Your task to perform on an android device: Show me productivity apps on the Play Store Image 0: 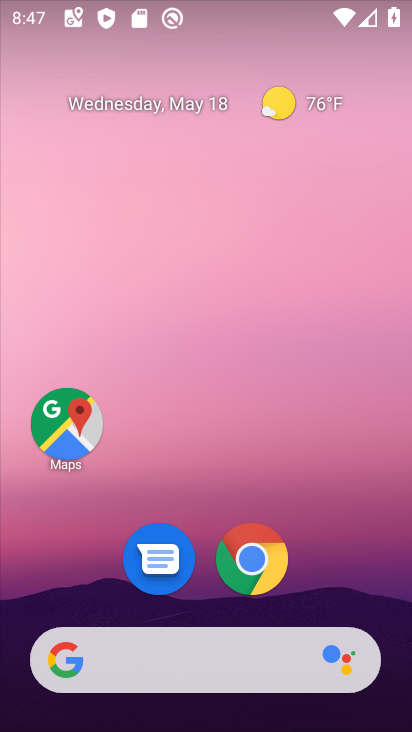
Step 0: drag from (338, 578) to (322, 71)
Your task to perform on an android device: Show me productivity apps on the Play Store Image 1: 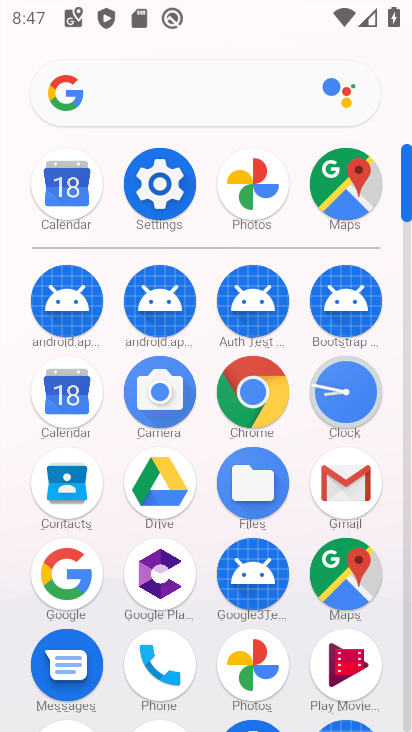
Step 1: drag from (117, 597) to (154, 175)
Your task to perform on an android device: Show me productivity apps on the Play Store Image 2: 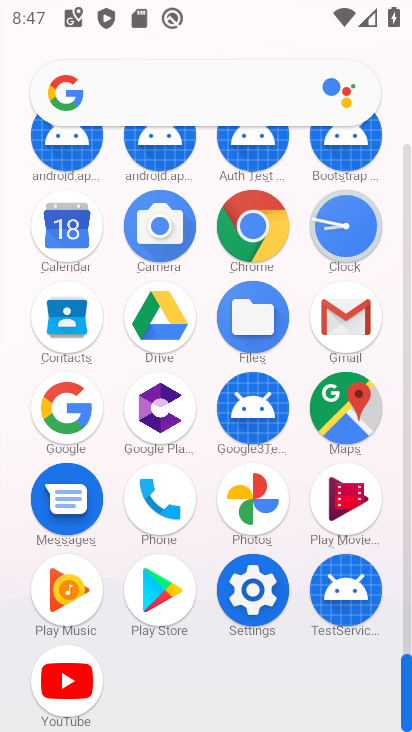
Step 2: click (155, 570)
Your task to perform on an android device: Show me productivity apps on the Play Store Image 3: 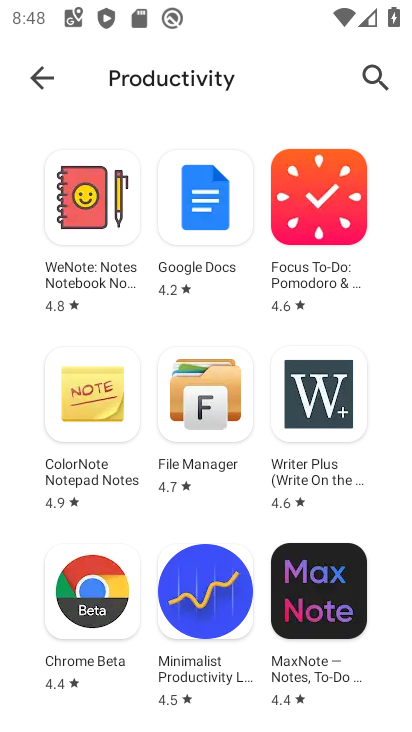
Step 3: task complete